Your task to perform on an android device: Go to Amazon Image 0: 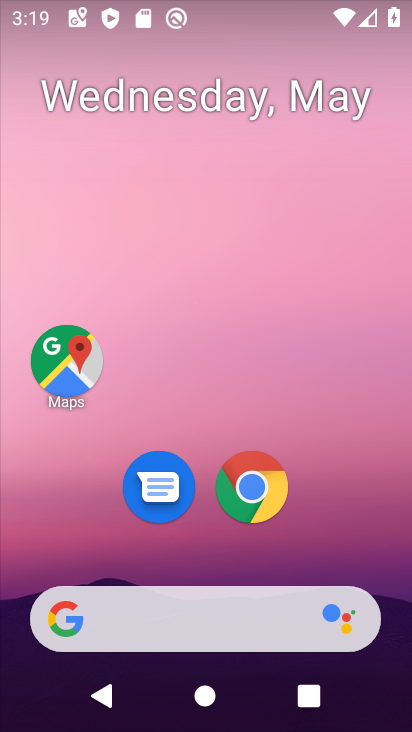
Step 0: drag from (341, 531) to (252, 35)
Your task to perform on an android device: Go to Amazon Image 1: 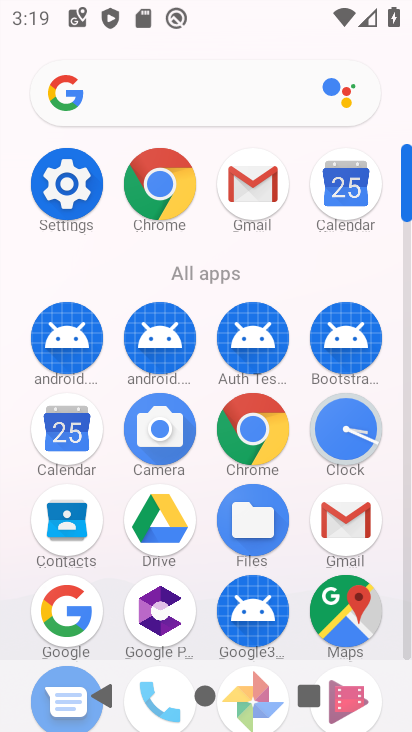
Step 1: drag from (13, 556) to (13, 256)
Your task to perform on an android device: Go to Amazon Image 2: 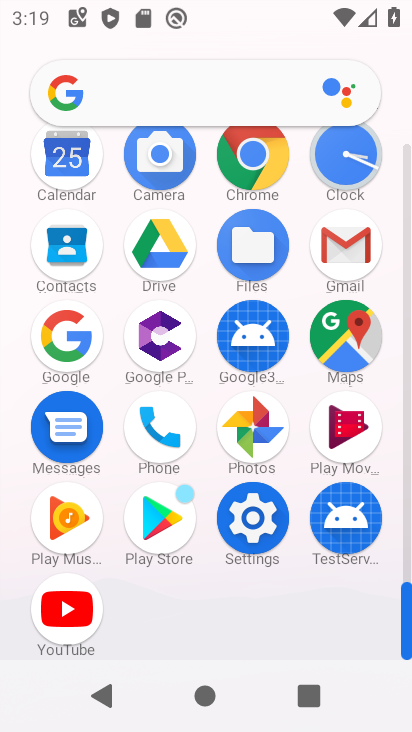
Step 2: click (255, 149)
Your task to perform on an android device: Go to Amazon Image 3: 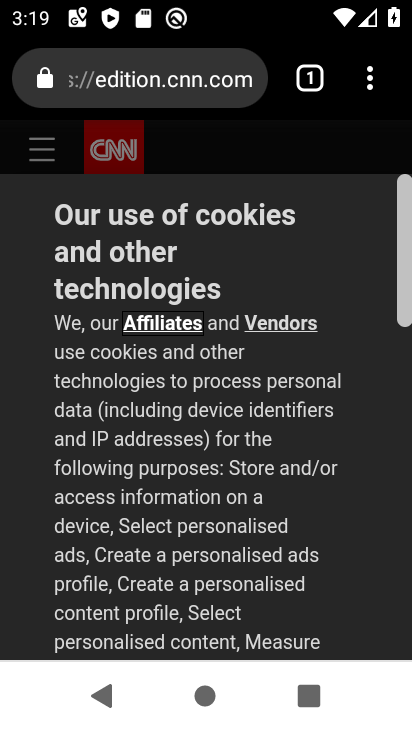
Step 3: click (187, 68)
Your task to perform on an android device: Go to Amazon Image 4: 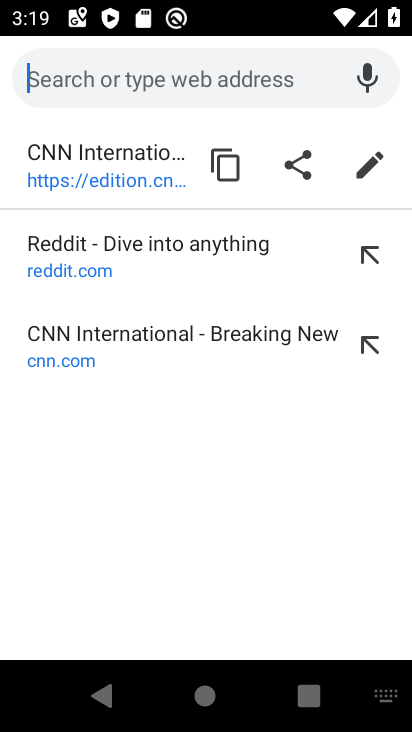
Step 4: type "Amazon"
Your task to perform on an android device: Go to Amazon Image 5: 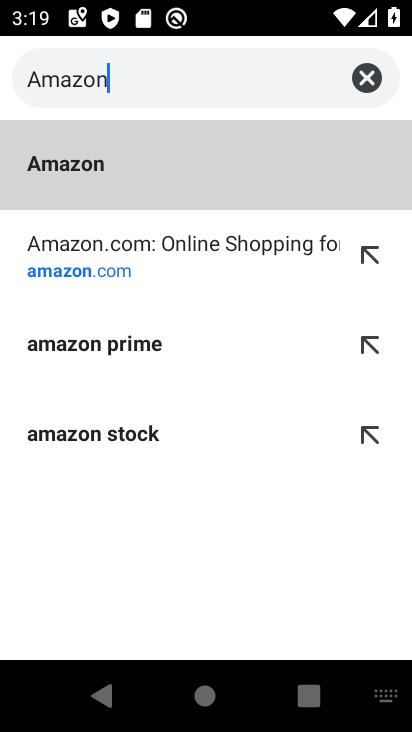
Step 5: type ""
Your task to perform on an android device: Go to Amazon Image 6: 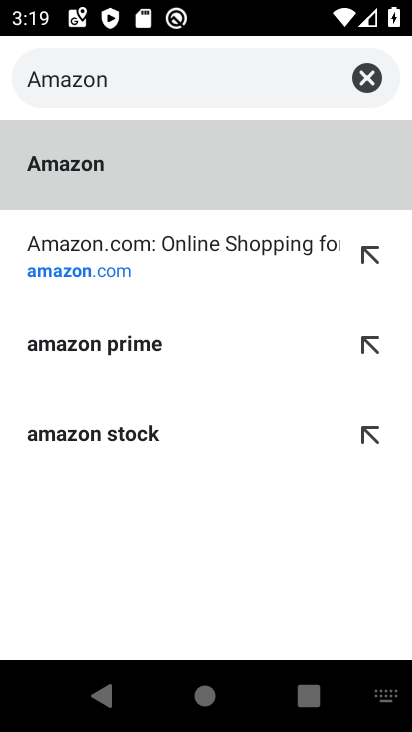
Step 6: click (128, 259)
Your task to perform on an android device: Go to Amazon Image 7: 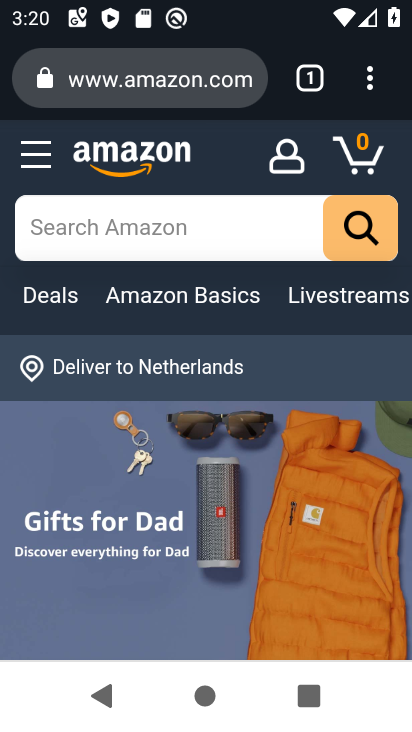
Step 7: task complete